Your task to perform on an android device: open app "Google Sheets" Image 0: 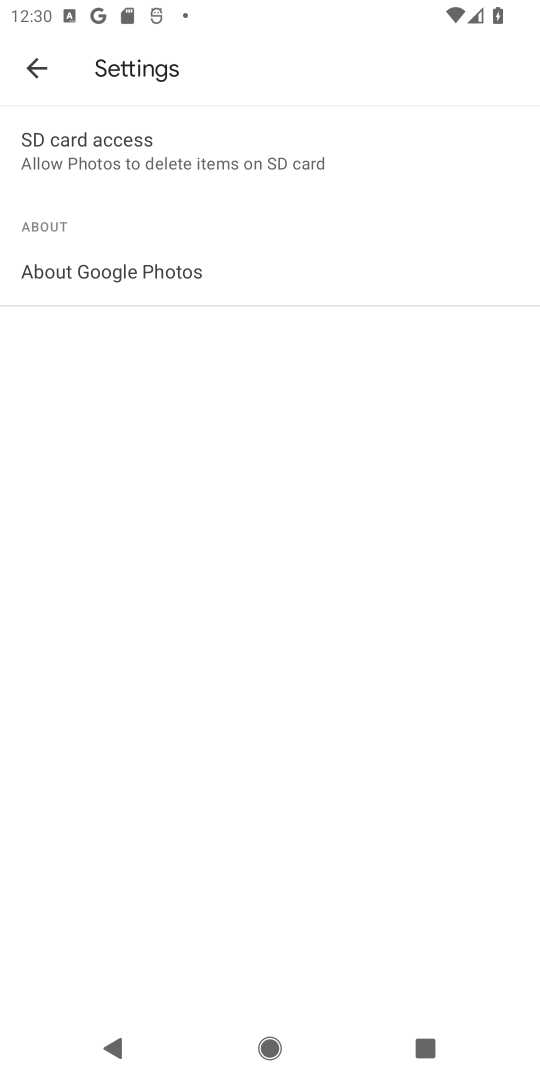
Step 0: press home button
Your task to perform on an android device: open app "Google Sheets" Image 1: 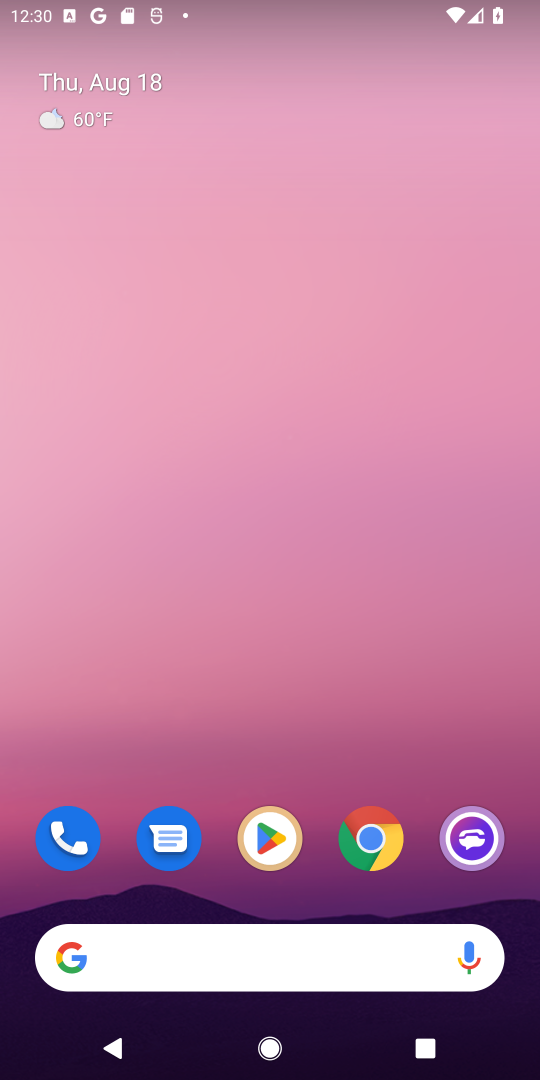
Step 1: click (275, 826)
Your task to perform on an android device: open app "Google Sheets" Image 2: 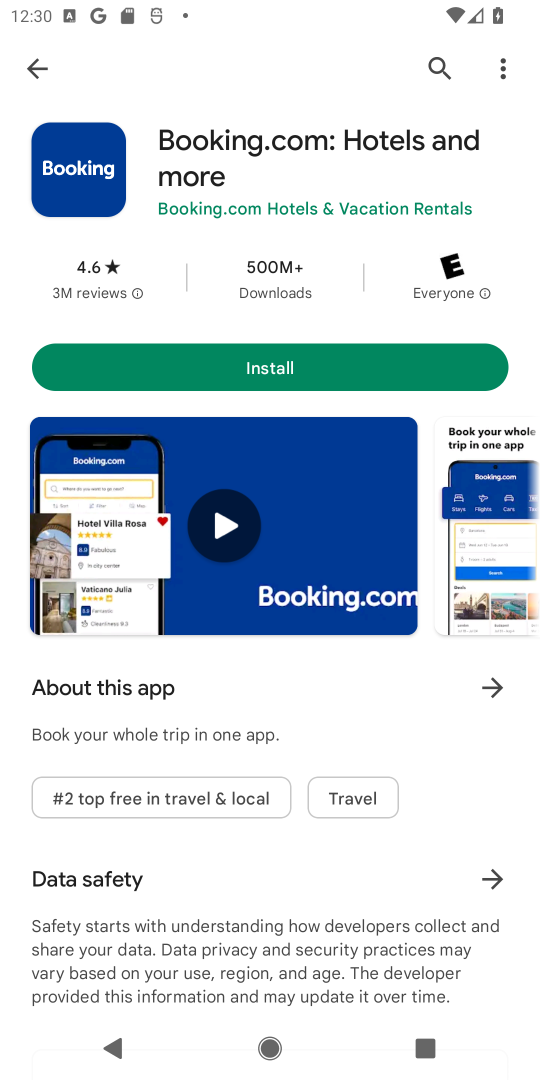
Step 2: click (427, 60)
Your task to perform on an android device: open app "Google Sheets" Image 3: 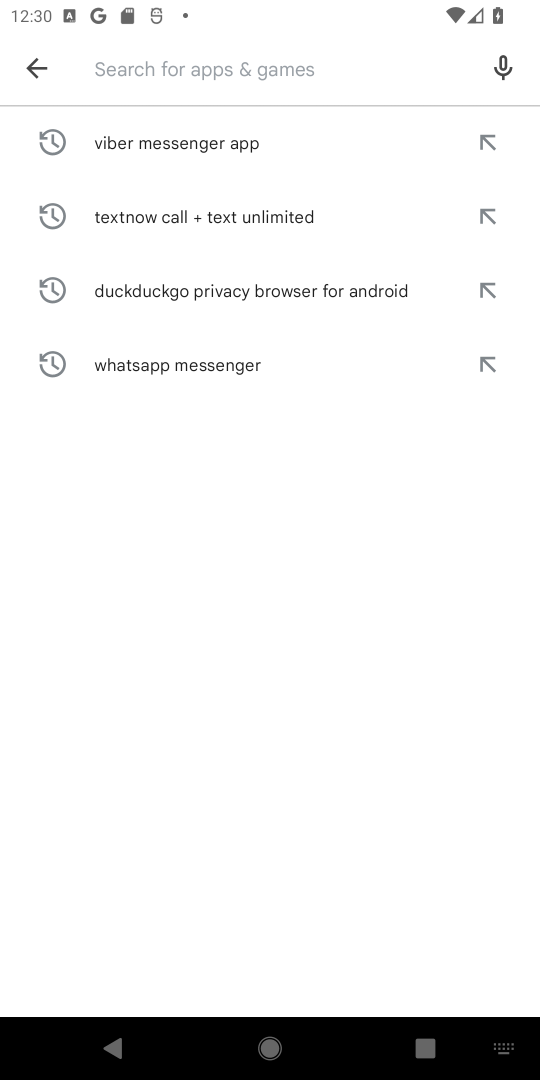
Step 3: type "Google Sheets"
Your task to perform on an android device: open app "Google Sheets" Image 4: 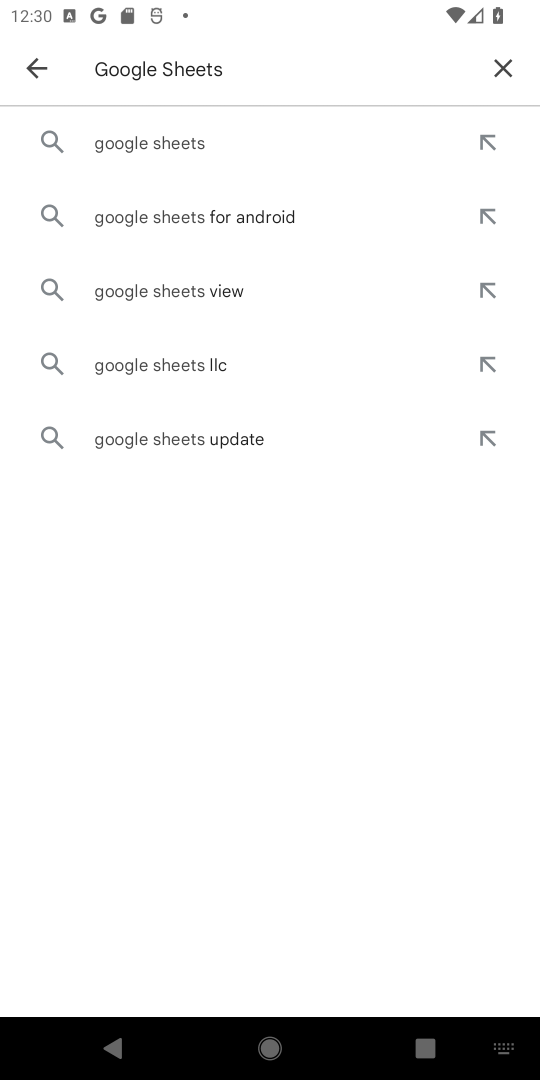
Step 4: click (263, 133)
Your task to perform on an android device: open app "Google Sheets" Image 5: 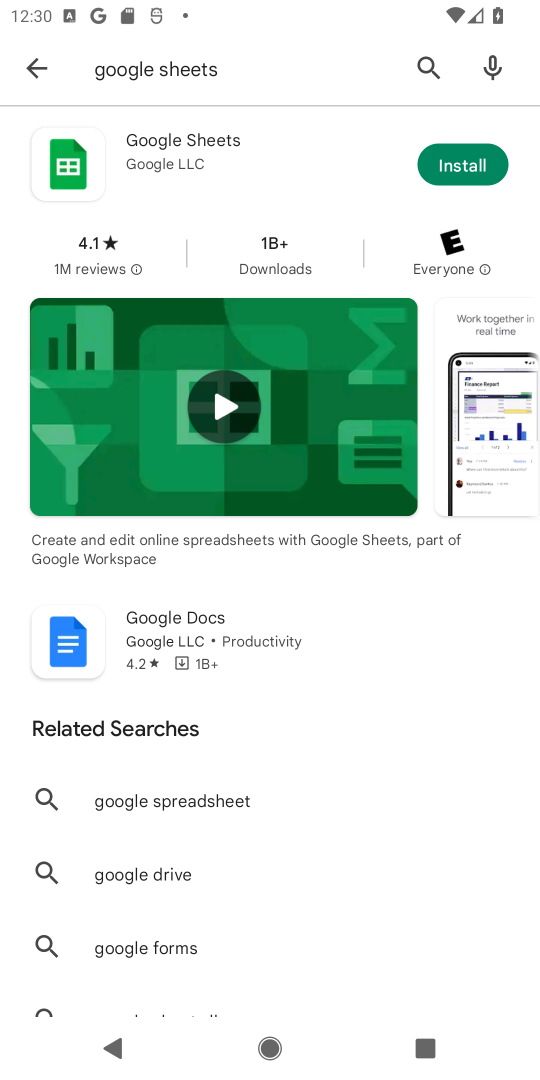
Step 5: task complete